Your task to perform on an android device: Open the calendar app, open the side menu, and click the "Day" option Image 0: 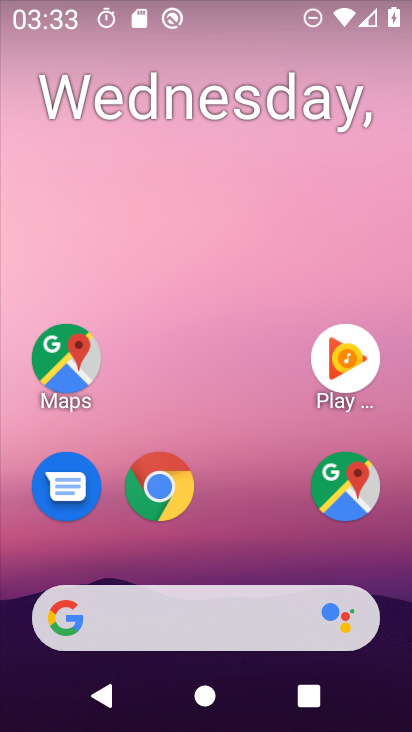
Step 0: press home button
Your task to perform on an android device: Open the calendar app, open the side menu, and click the "Day" option Image 1: 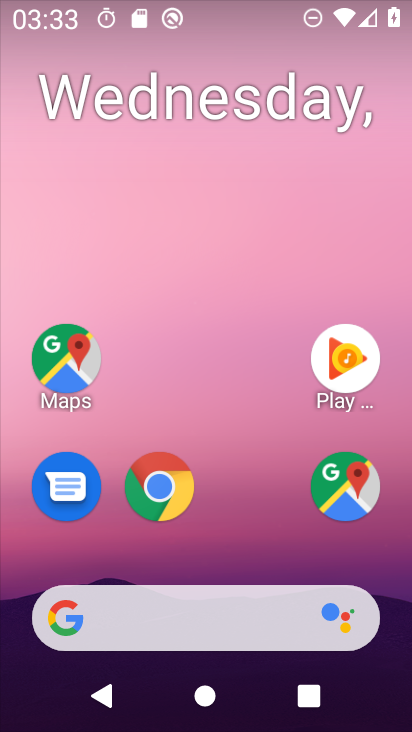
Step 1: drag from (270, 562) to (250, 147)
Your task to perform on an android device: Open the calendar app, open the side menu, and click the "Day" option Image 2: 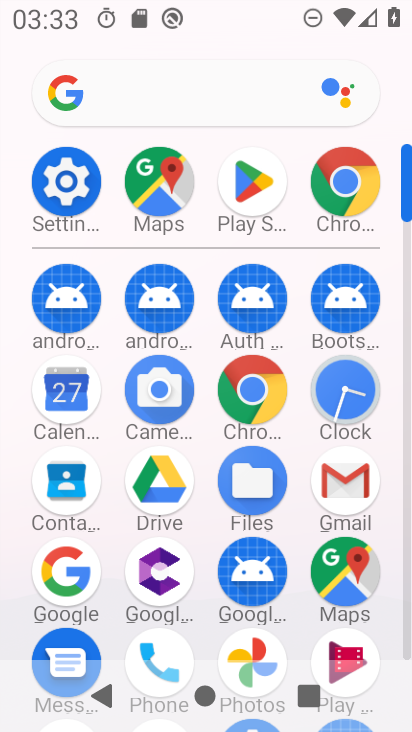
Step 2: click (74, 394)
Your task to perform on an android device: Open the calendar app, open the side menu, and click the "Day" option Image 3: 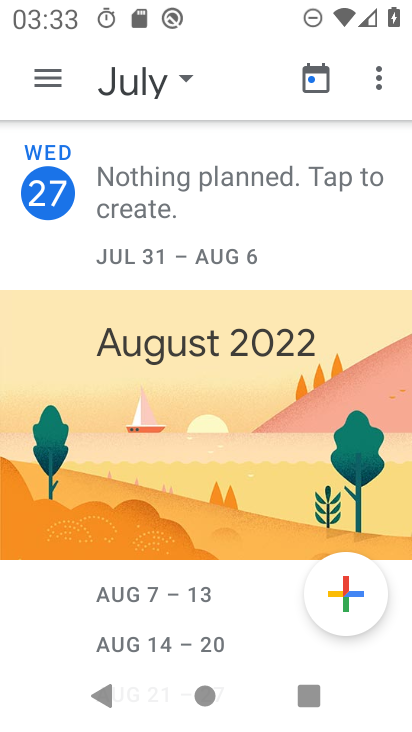
Step 3: click (49, 74)
Your task to perform on an android device: Open the calendar app, open the side menu, and click the "Day" option Image 4: 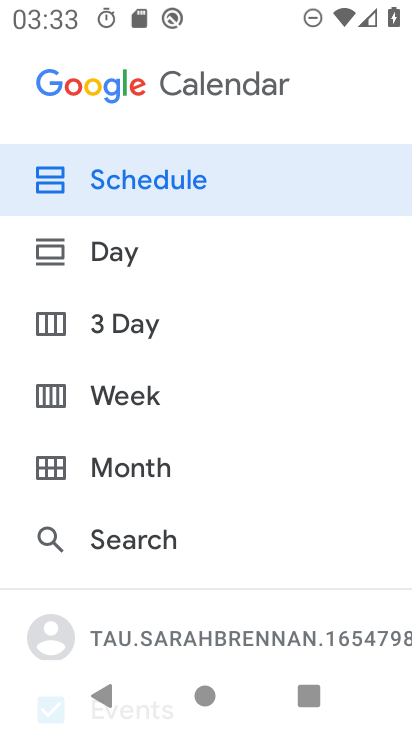
Step 4: click (160, 267)
Your task to perform on an android device: Open the calendar app, open the side menu, and click the "Day" option Image 5: 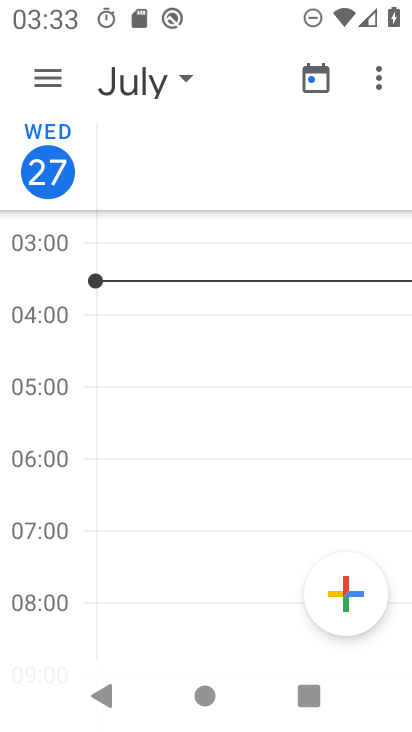
Step 5: task complete